Your task to perform on an android device: Search for Italian restaurants on Maps Image 0: 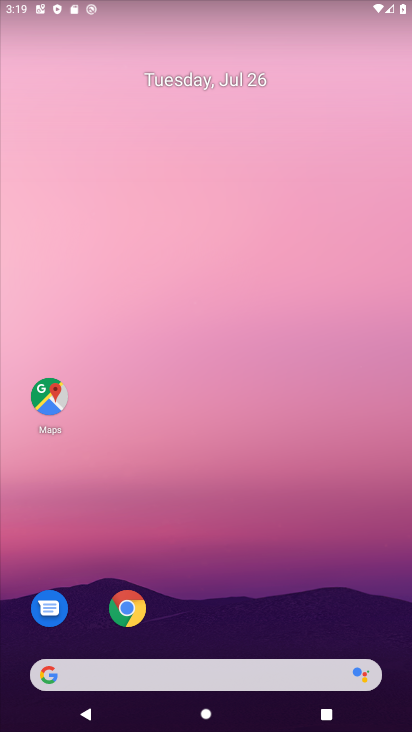
Step 0: click (52, 403)
Your task to perform on an android device: Search for Italian restaurants on Maps Image 1: 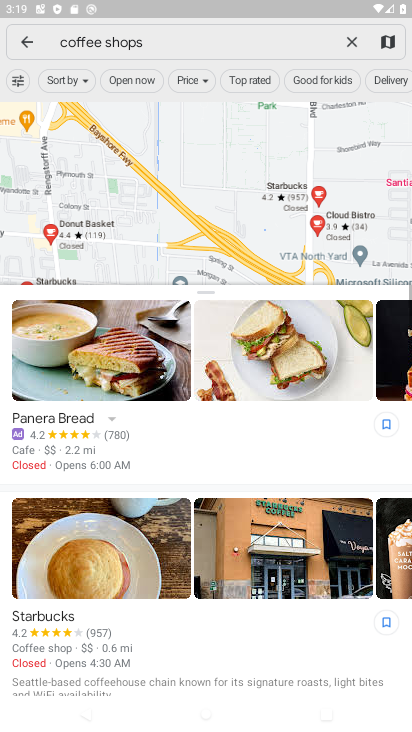
Step 1: click (347, 39)
Your task to perform on an android device: Search for Italian restaurants on Maps Image 2: 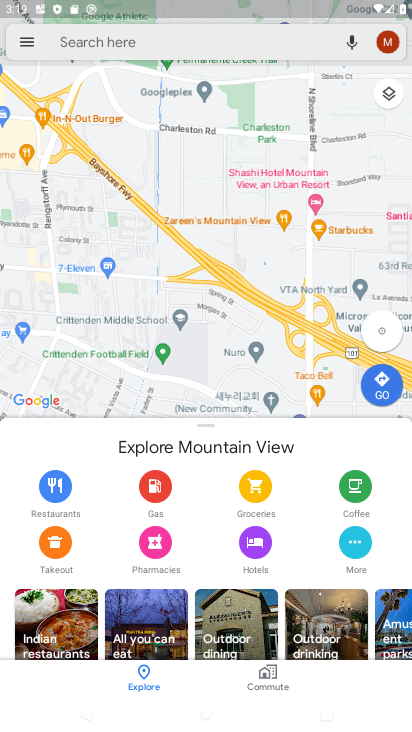
Step 2: click (251, 51)
Your task to perform on an android device: Search for Italian restaurants on Maps Image 3: 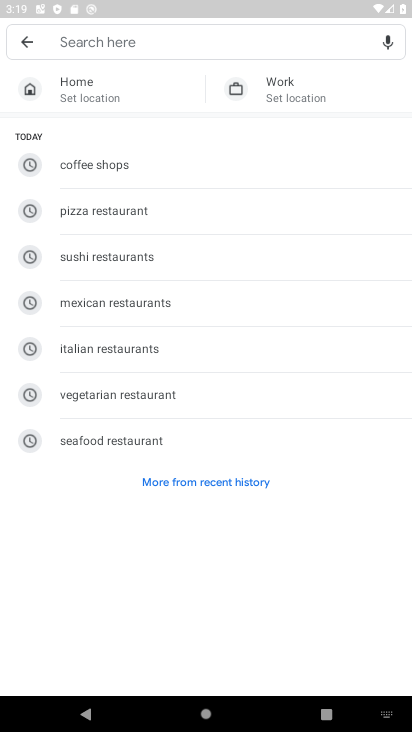
Step 3: type " Italian restaurants "
Your task to perform on an android device: Search for Italian restaurants on Maps Image 4: 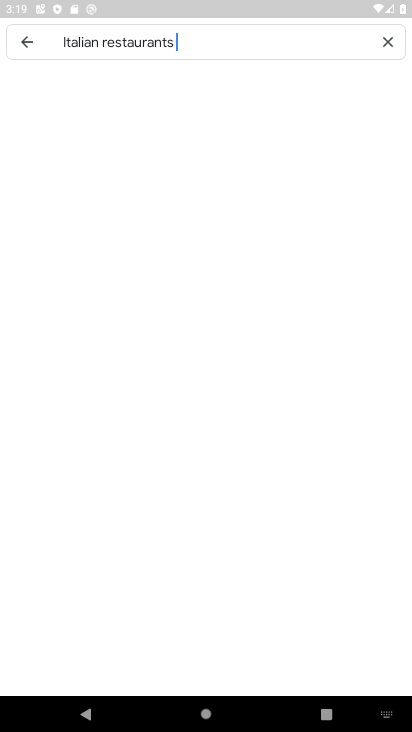
Step 4: press enter
Your task to perform on an android device: Search for Italian restaurants on Maps Image 5: 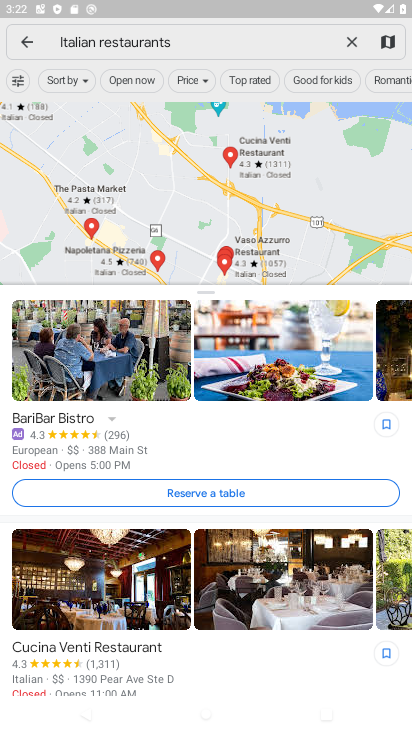
Step 5: task complete